Your task to perform on an android device: Open Chrome and go to the settings page Image 0: 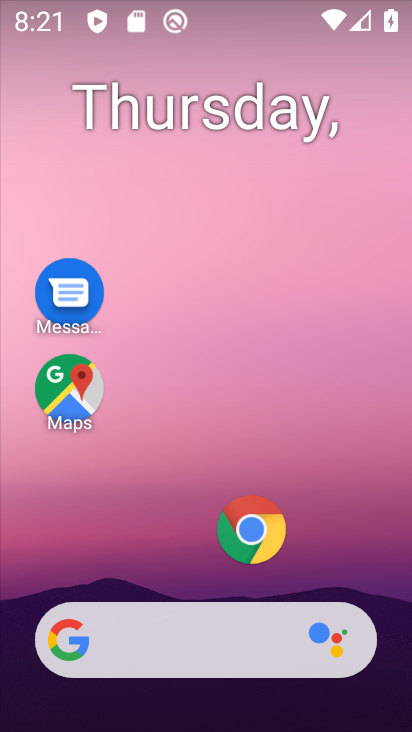
Step 0: click (250, 522)
Your task to perform on an android device: Open Chrome and go to the settings page Image 1: 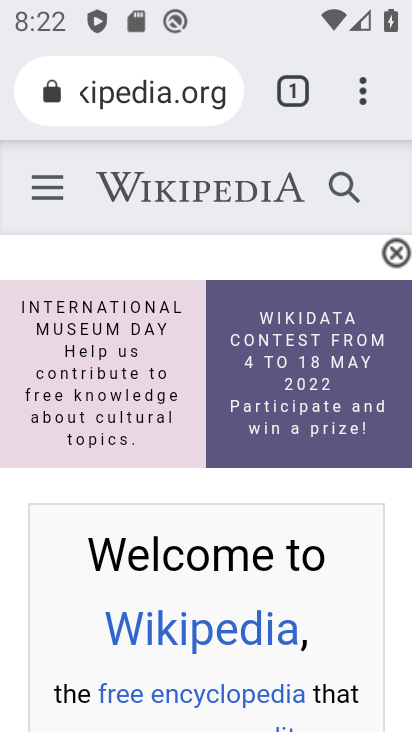
Step 1: click (384, 72)
Your task to perform on an android device: Open Chrome and go to the settings page Image 2: 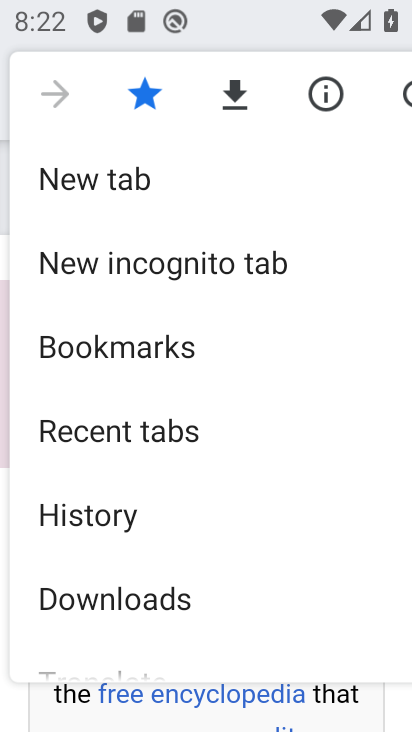
Step 2: drag from (161, 534) to (229, 174)
Your task to perform on an android device: Open Chrome and go to the settings page Image 3: 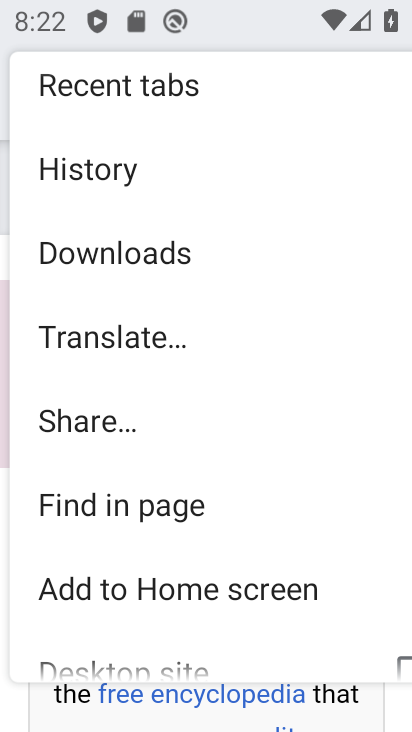
Step 3: drag from (116, 591) to (184, 164)
Your task to perform on an android device: Open Chrome and go to the settings page Image 4: 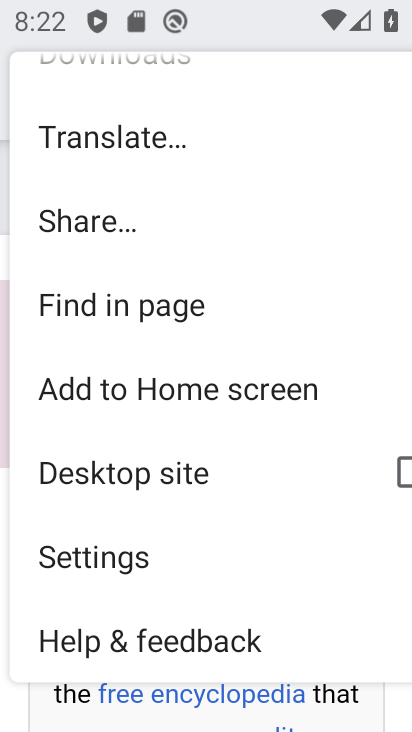
Step 4: click (147, 562)
Your task to perform on an android device: Open Chrome and go to the settings page Image 5: 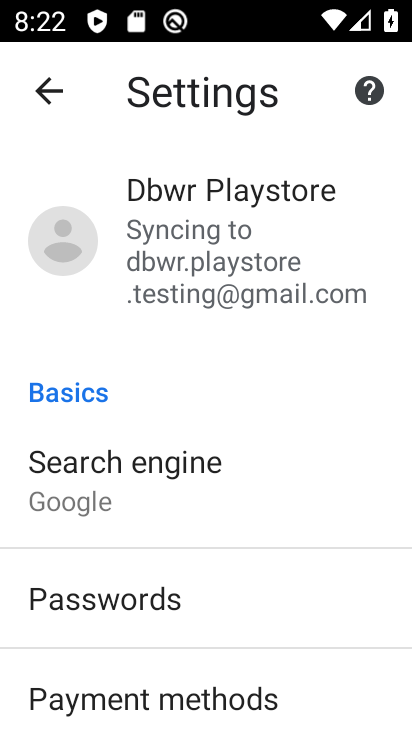
Step 5: task complete